Your task to perform on an android device: Open Google Maps Image 0: 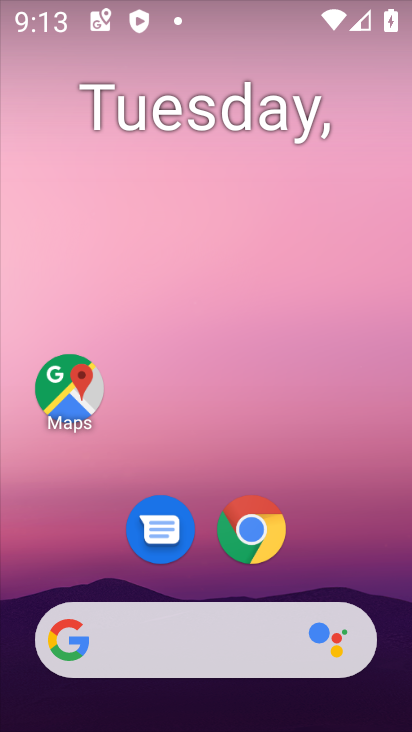
Step 0: drag from (259, 570) to (370, 35)
Your task to perform on an android device: Open Google Maps Image 1: 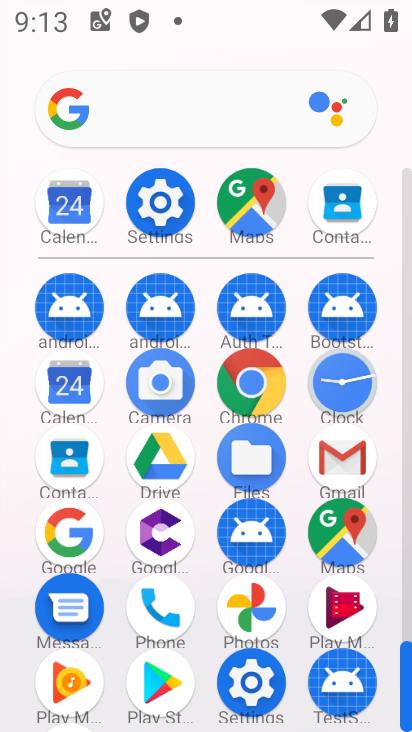
Step 1: click (266, 210)
Your task to perform on an android device: Open Google Maps Image 2: 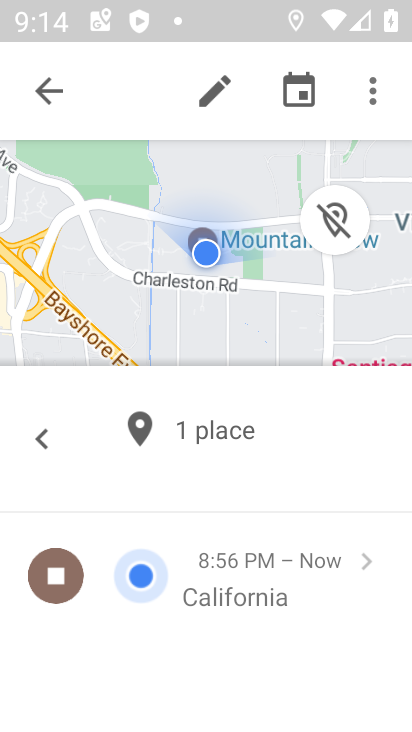
Step 2: task complete